Your task to perform on an android device: turn notification dots on Image 0: 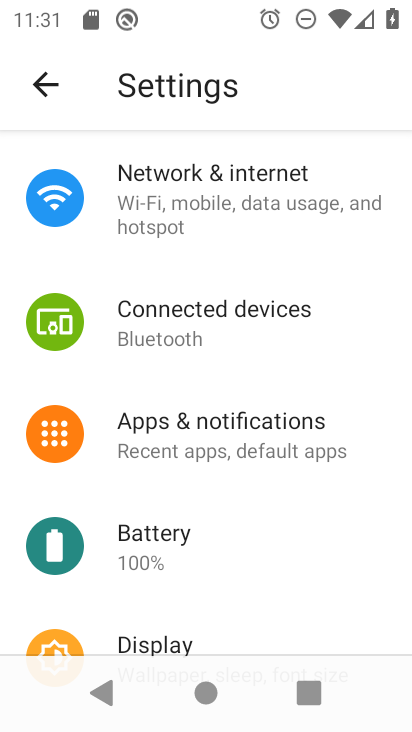
Step 0: drag from (228, 549) to (242, 315)
Your task to perform on an android device: turn notification dots on Image 1: 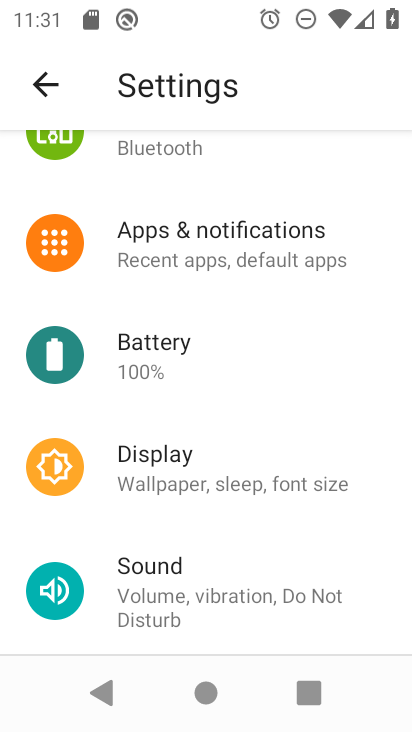
Step 1: click (251, 250)
Your task to perform on an android device: turn notification dots on Image 2: 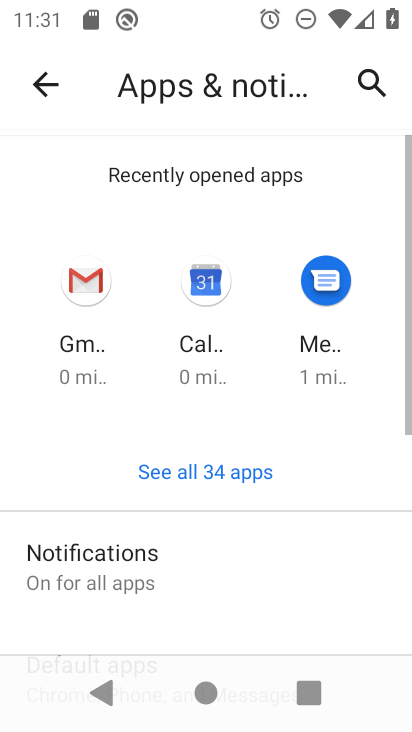
Step 2: click (170, 566)
Your task to perform on an android device: turn notification dots on Image 3: 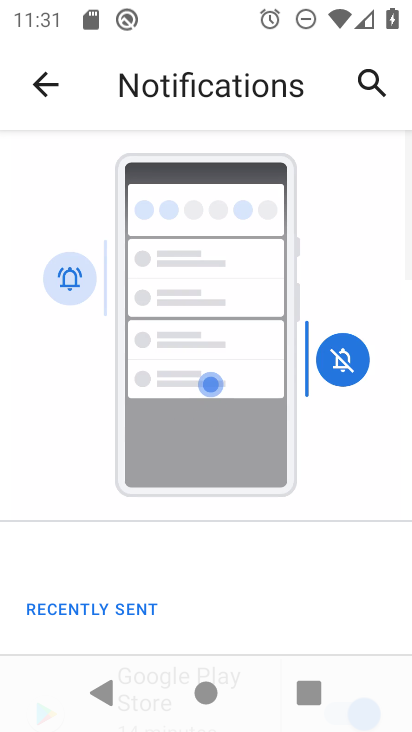
Step 3: drag from (223, 606) to (268, 320)
Your task to perform on an android device: turn notification dots on Image 4: 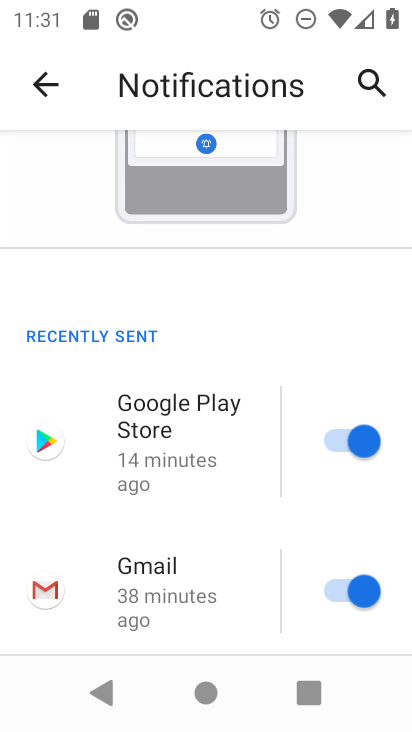
Step 4: drag from (177, 562) to (203, 232)
Your task to perform on an android device: turn notification dots on Image 5: 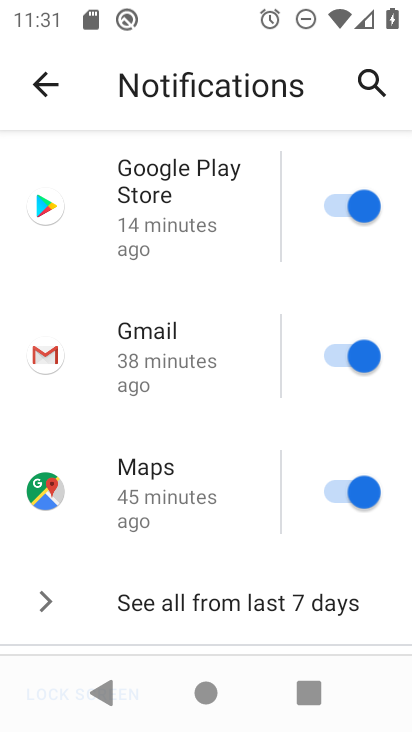
Step 5: drag from (181, 546) to (225, 245)
Your task to perform on an android device: turn notification dots on Image 6: 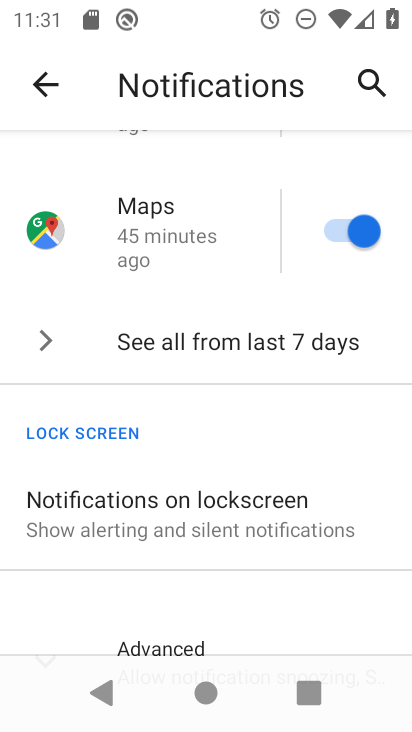
Step 6: click (182, 503)
Your task to perform on an android device: turn notification dots on Image 7: 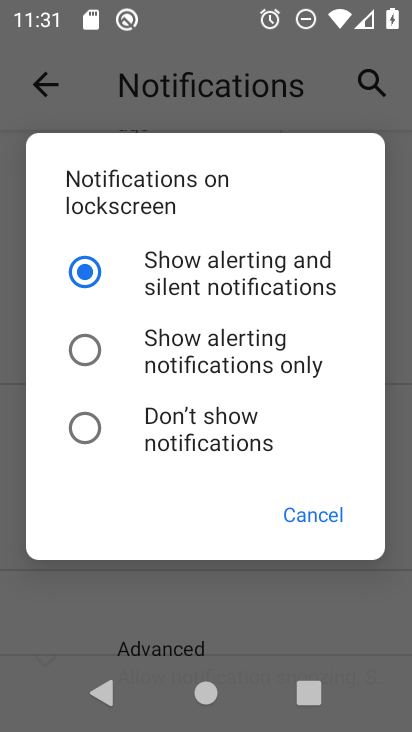
Step 7: click (316, 507)
Your task to perform on an android device: turn notification dots on Image 8: 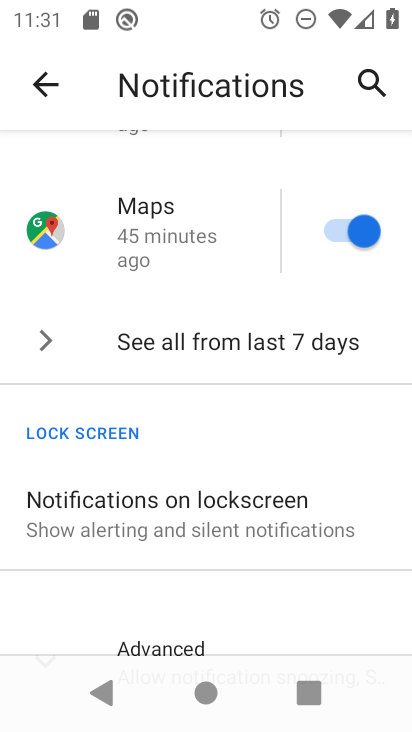
Step 8: drag from (306, 594) to (293, 201)
Your task to perform on an android device: turn notification dots on Image 9: 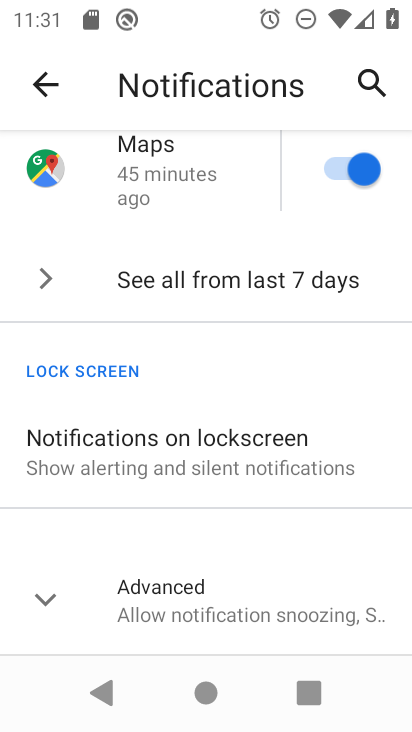
Step 9: click (241, 597)
Your task to perform on an android device: turn notification dots on Image 10: 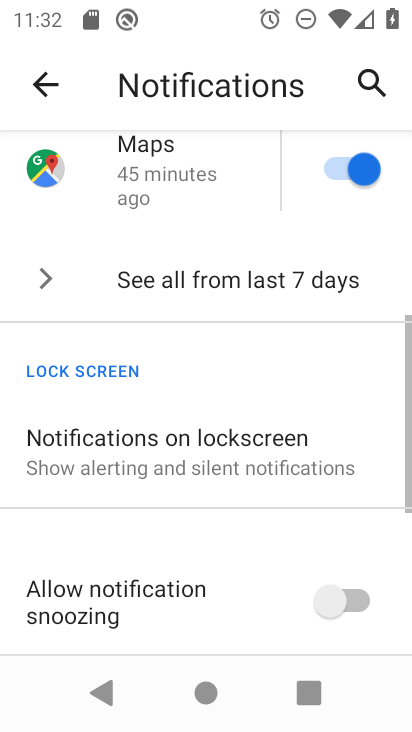
Step 10: drag from (238, 602) to (193, 271)
Your task to perform on an android device: turn notification dots on Image 11: 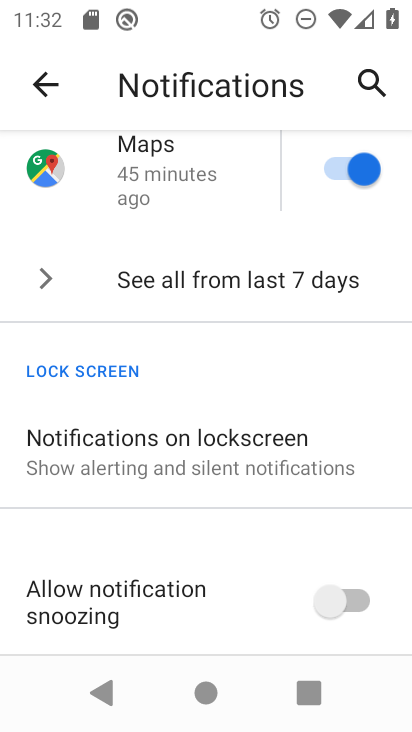
Step 11: drag from (160, 569) to (163, 264)
Your task to perform on an android device: turn notification dots on Image 12: 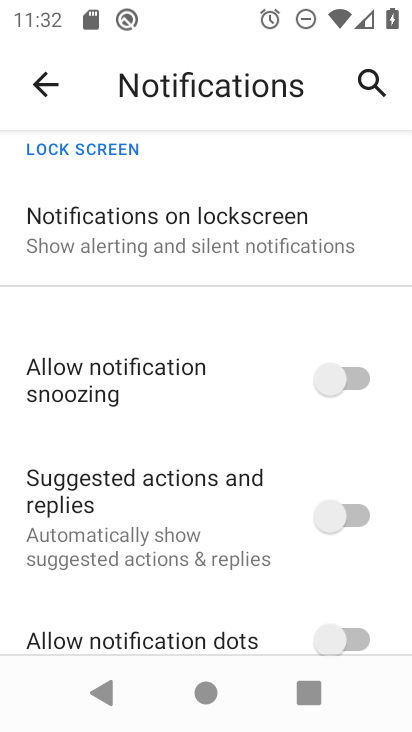
Step 12: drag from (208, 556) to (259, 224)
Your task to perform on an android device: turn notification dots on Image 13: 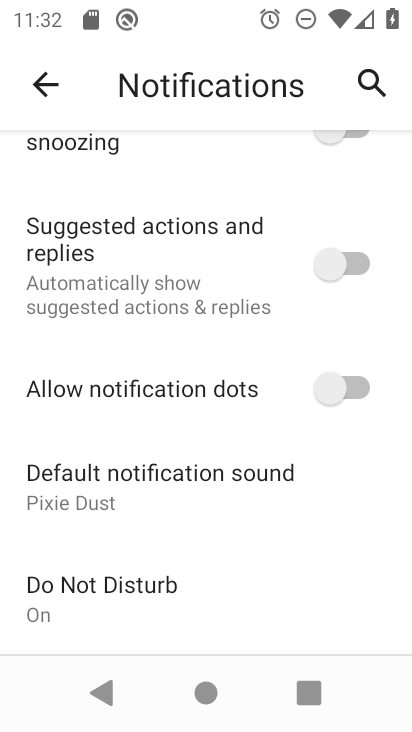
Step 13: click (343, 382)
Your task to perform on an android device: turn notification dots on Image 14: 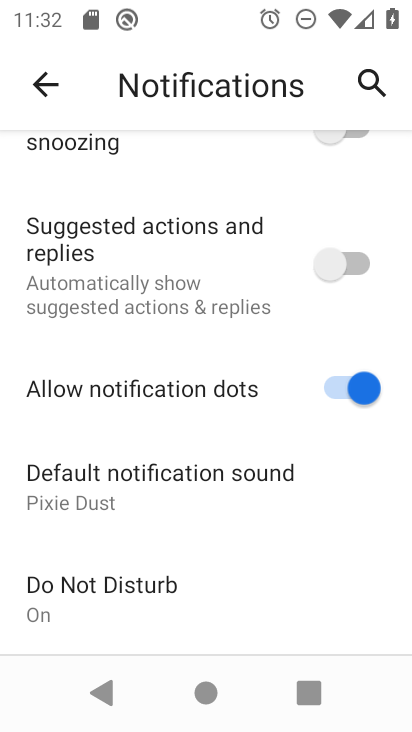
Step 14: task complete